Your task to perform on an android device: turn off data saver in the chrome app Image 0: 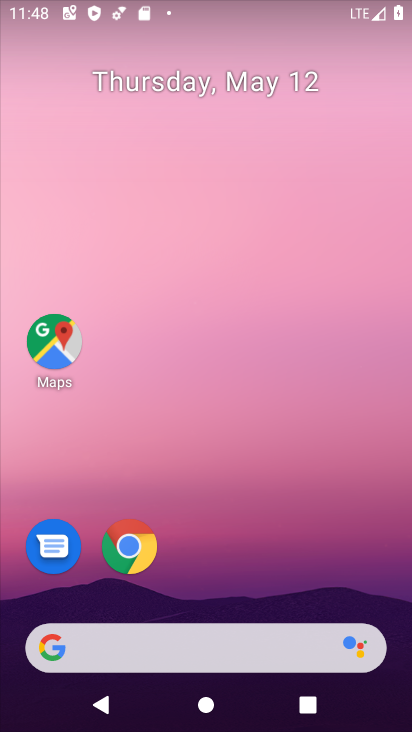
Step 0: drag from (146, 555) to (158, 61)
Your task to perform on an android device: turn off data saver in the chrome app Image 1: 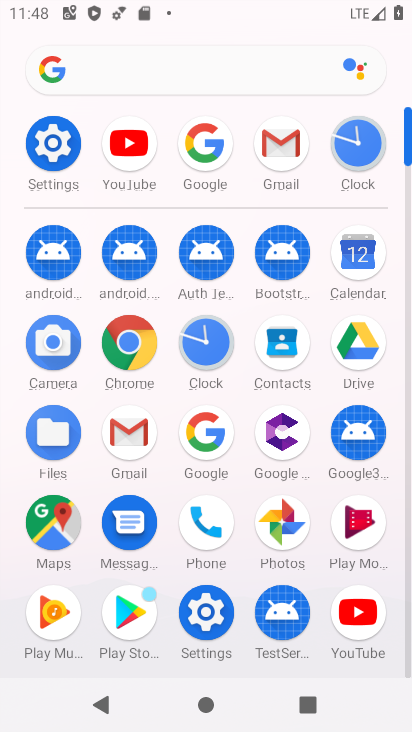
Step 1: click (132, 340)
Your task to perform on an android device: turn off data saver in the chrome app Image 2: 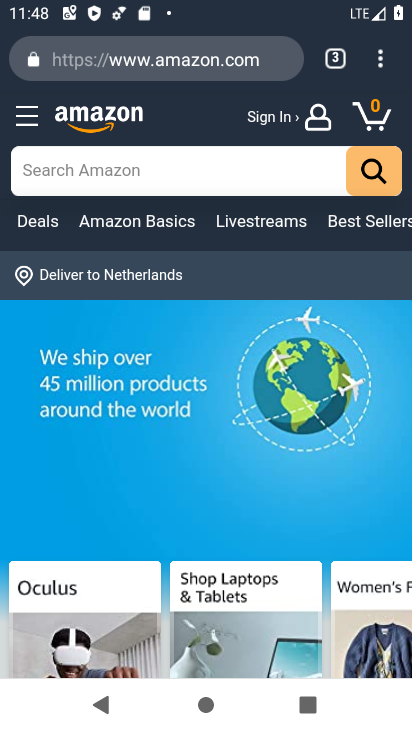
Step 2: click (387, 61)
Your task to perform on an android device: turn off data saver in the chrome app Image 3: 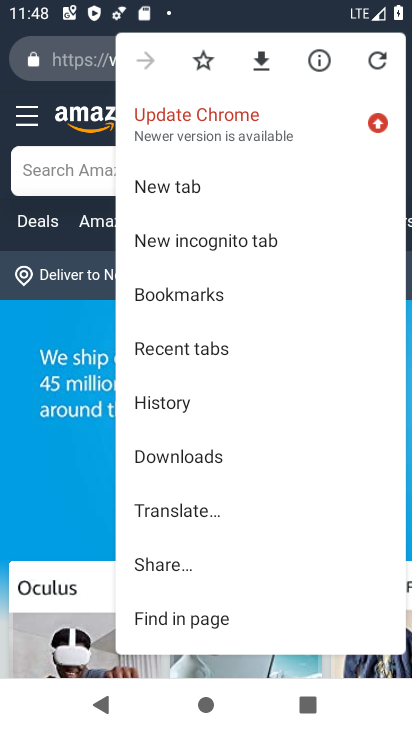
Step 3: drag from (244, 564) to (273, 292)
Your task to perform on an android device: turn off data saver in the chrome app Image 4: 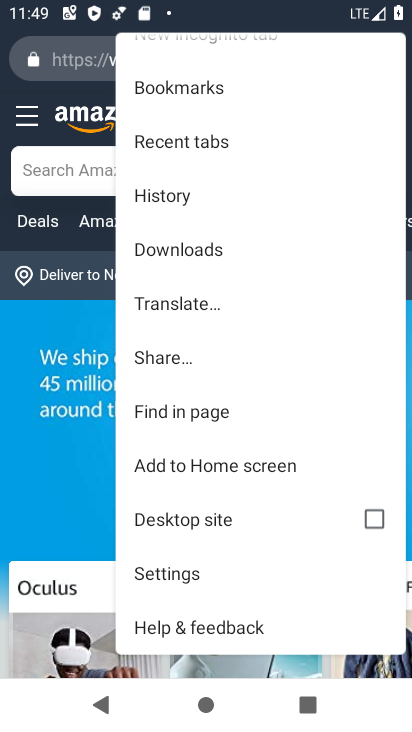
Step 4: click (178, 581)
Your task to perform on an android device: turn off data saver in the chrome app Image 5: 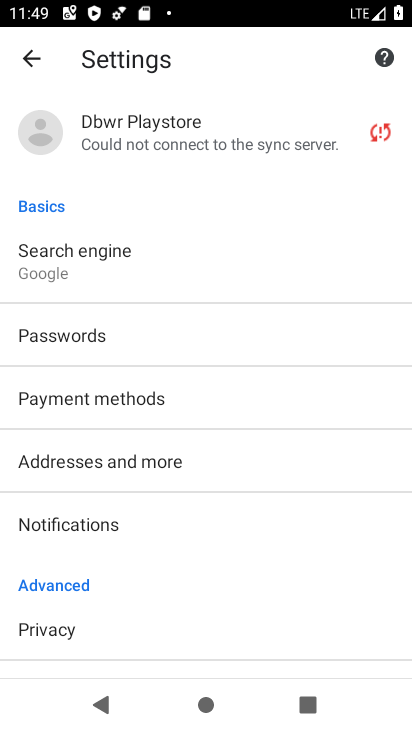
Step 5: drag from (178, 581) to (223, 219)
Your task to perform on an android device: turn off data saver in the chrome app Image 6: 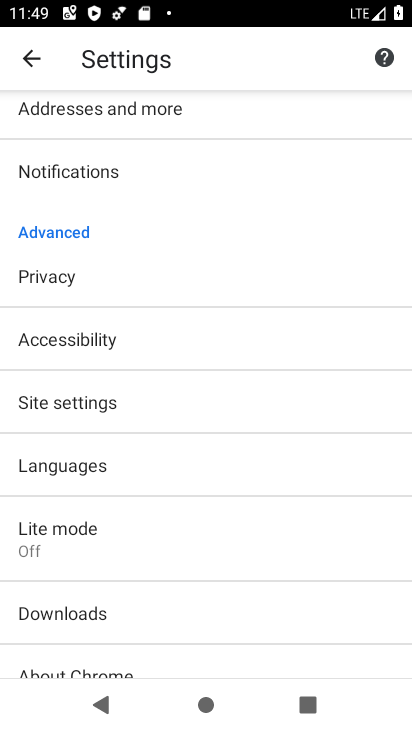
Step 6: click (115, 544)
Your task to perform on an android device: turn off data saver in the chrome app Image 7: 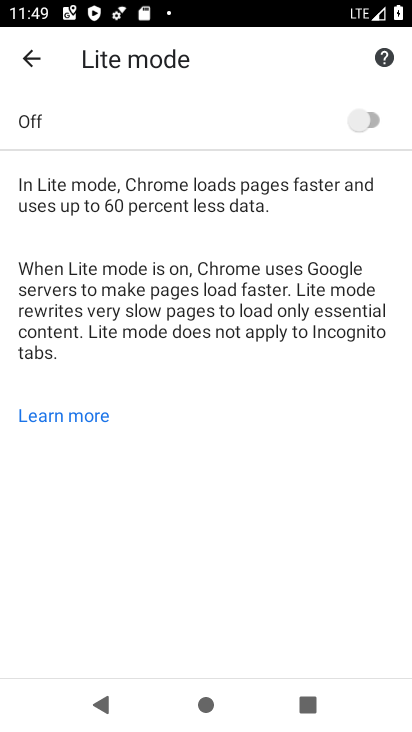
Step 7: task complete